Your task to perform on an android device: Open Youtube and go to "Your channel" Image 0: 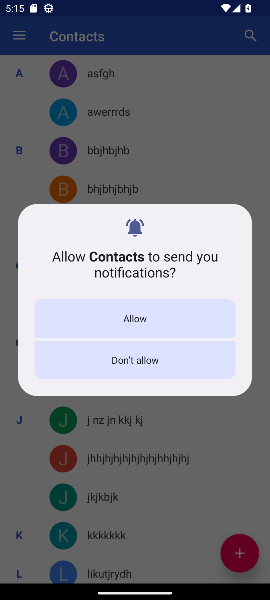
Step 0: press home button
Your task to perform on an android device: Open Youtube and go to "Your channel" Image 1: 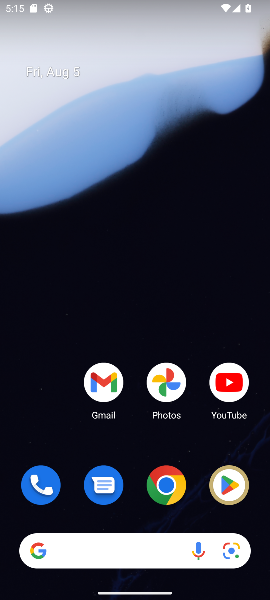
Step 1: click (230, 396)
Your task to perform on an android device: Open Youtube and go to "Your channel" Image 2: 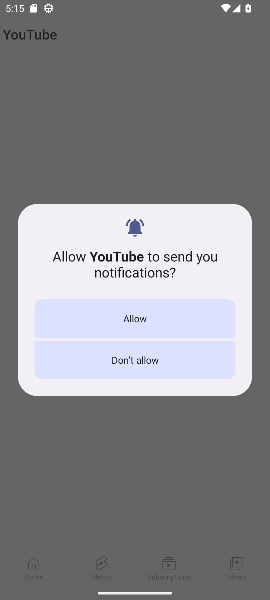
Step 2: click (154, 326)
Your task to perform on an android device: Open Youtube and go to "Your channel" Image 3: 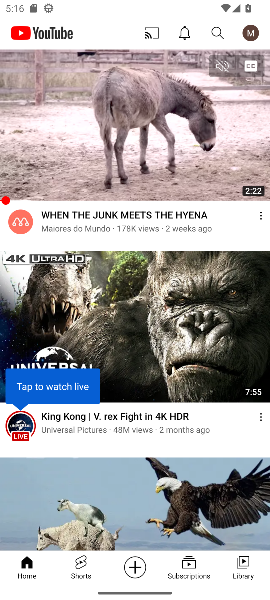
Step 3: click (255, 26)
Your task to perform on an android device: Open Youtube and go to "Your channel" Image 4: 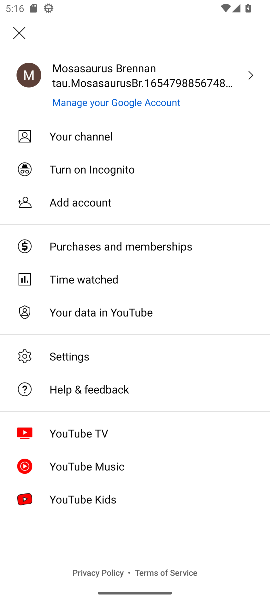
Step 4: click (89, 141)
Your task to perform on an android device: Open Youtube and go to "Your channel" Image 5: 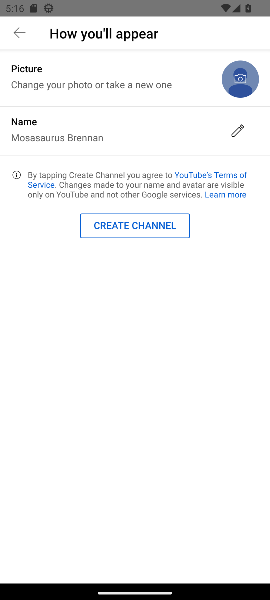
Step 5: task complete